Your task to perform on an android device: Go to ESPN.com Image 0: 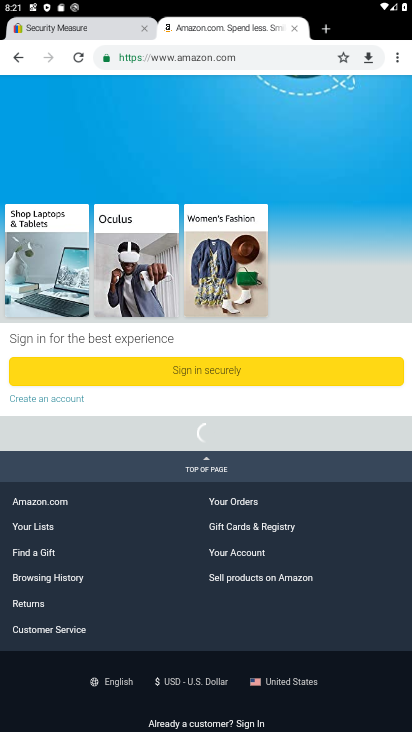
Step 0: drag from (231, 545) to (288, 344)
Your task to perform on an android device: Go to ESPN.com Image 1: 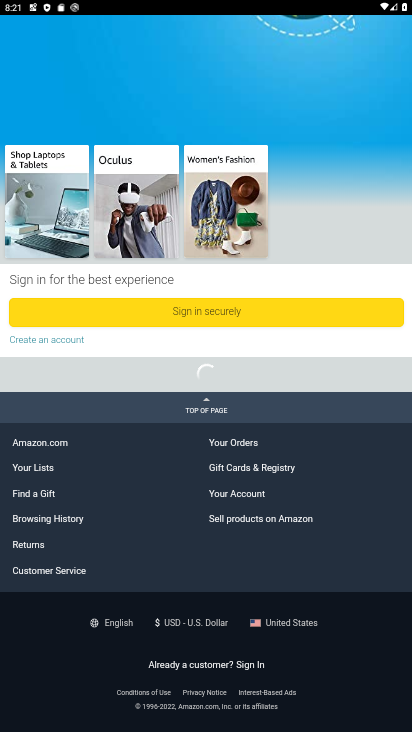
Step 1: drag from (162, 541) to (169, 273)
Your task to perform on an android device: Go to ESPN.com Image 2: 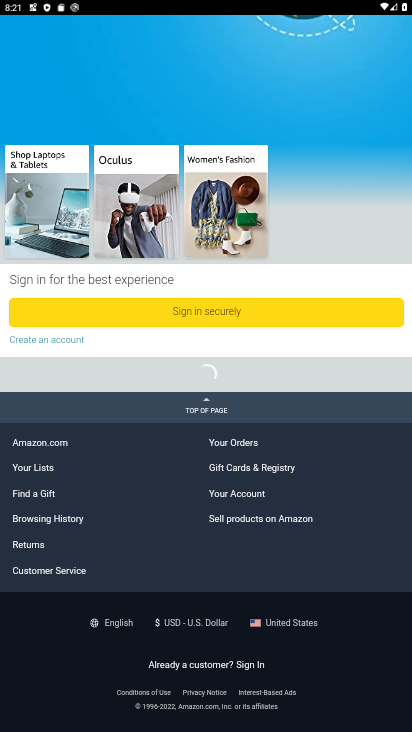
Step 2: drag from (95, 290) to (165, 608)
Your task to perform on an android device: Go to ESPN.com Image 3: 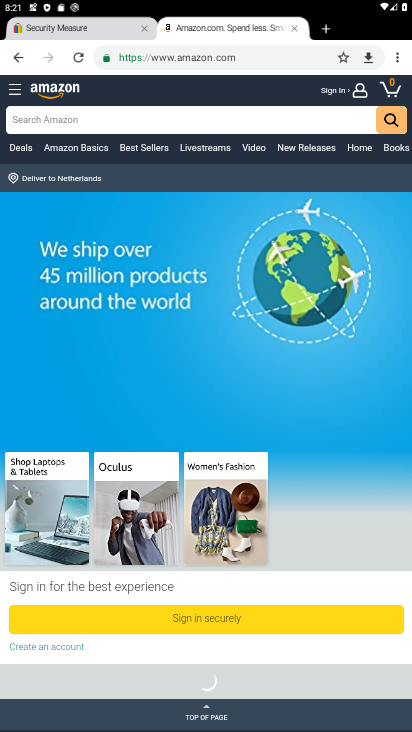
Step 3: drag from (322, 516) to (286, 216)
Your task to perform on an android device: Go to ESPN.com Image 4: 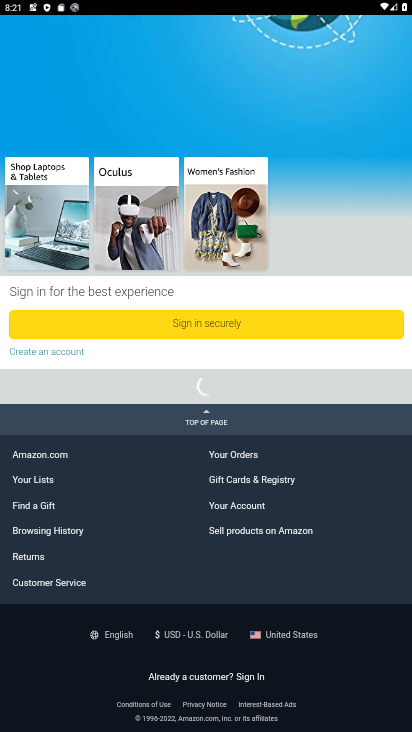
Step 4: click (196, 507)
Your task to perform on an android device: Go to ESPN.com Image 5: 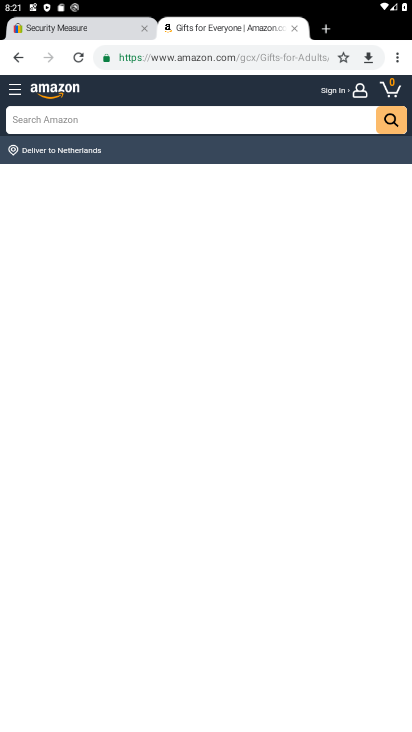
Step 5: click (328, 29)
Your task to perform on an android device: Go to ESPN.com Image 6: 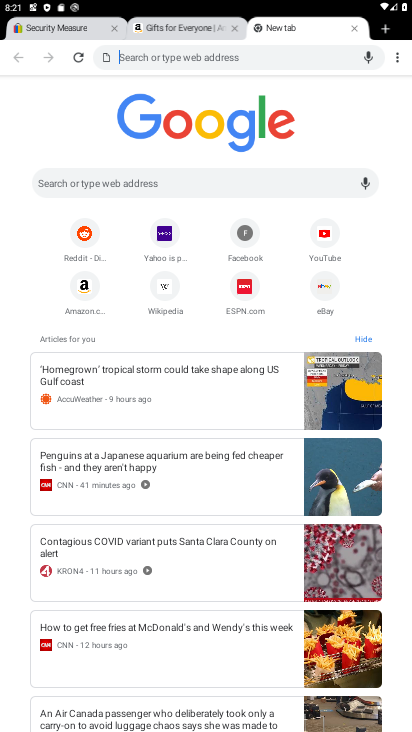
Step 6: click (240, 282)
Your task to perform on an android device: Go to ESPN.com Image 7: 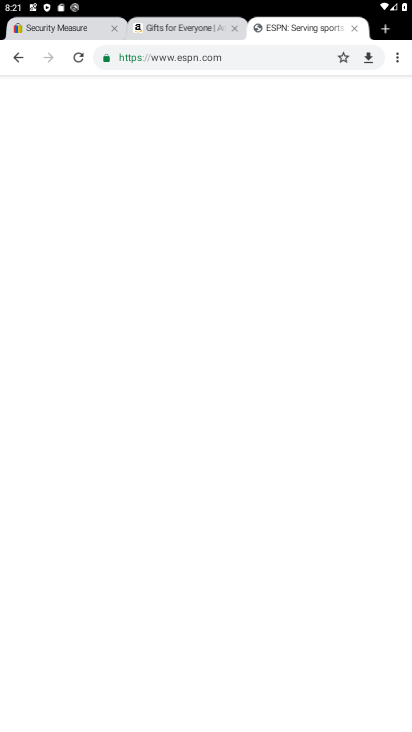
Step 7: task complete